Your task to perform on an android device: Open calendar and show me the fourth week of next month Image 0: 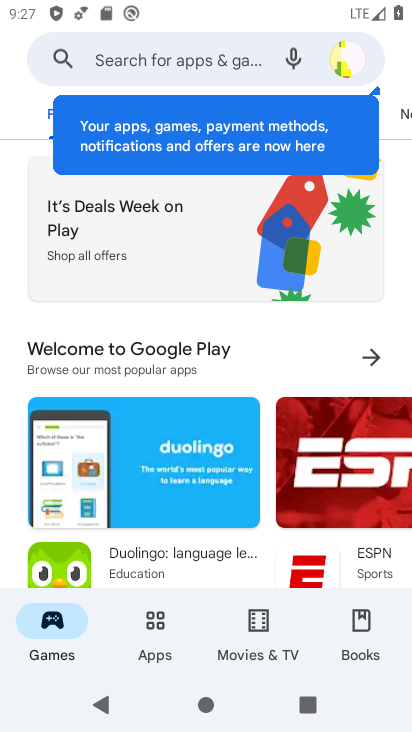
Step 0: press home button
Your task to perform on an android device: Open calendar and show me the fourth week of next month Image 1: 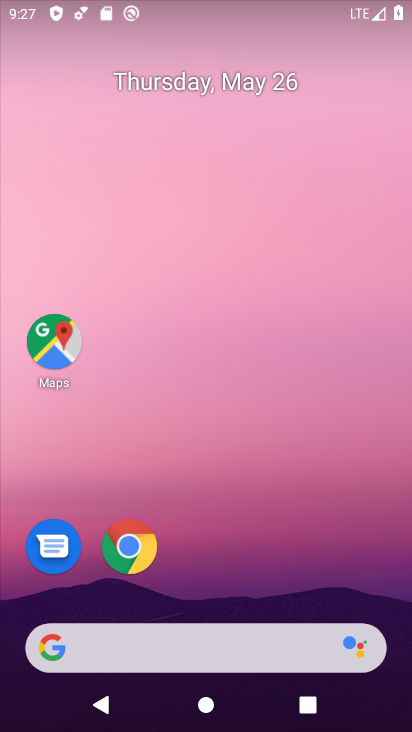
Step 1: drag from (333, 524) to (232, 139)
Your task to perform on an android device: Open calendar and show me the fourth week of next month Image 2: 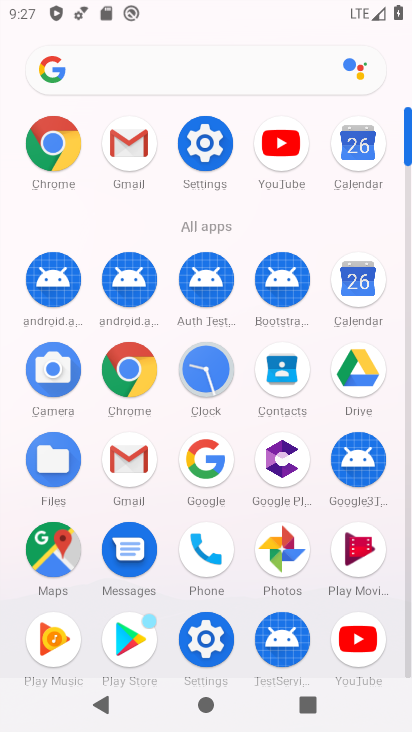
Step 2: click (368, 157)
Your task to perform on an android device: Open calendar and show me the fourth week of next month Image 3: 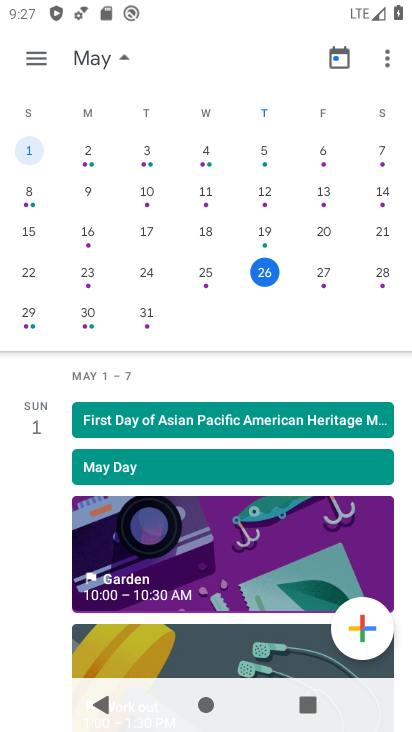
Step 3: drag from (301, 215) to (11, 215)
Your task to perform on an android device: Open calendar and show me the fourth week of next month Image 4: 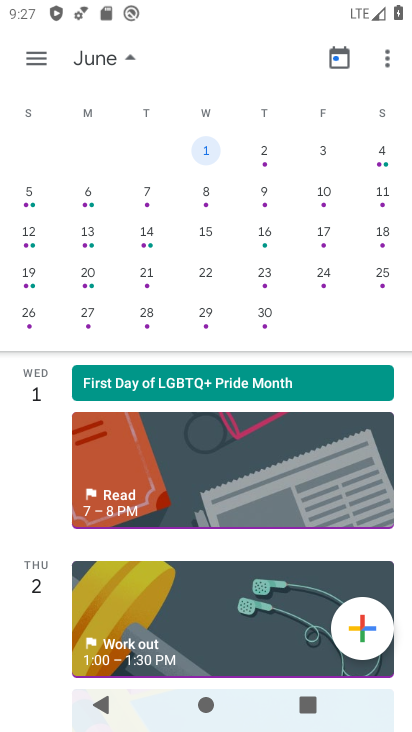
Step 4: click (37, 269)
Your task to perform on an android device: Open calendar and show me the fourth week of next month Image 5: 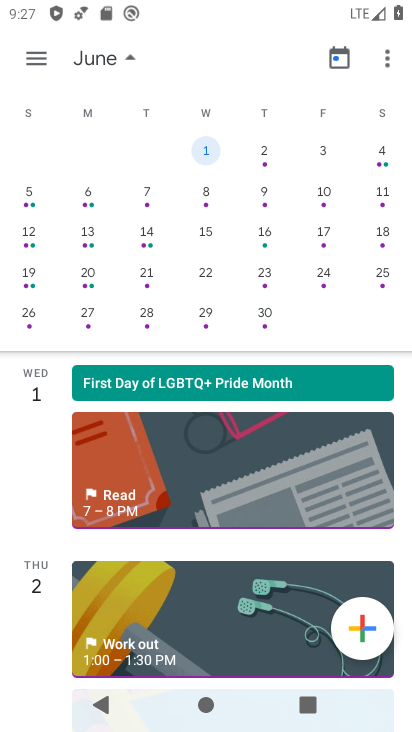
Step 5: click (34, 272)
Your task to perform on an android device: Open calendar and show me the fourth week of next month Image 6: 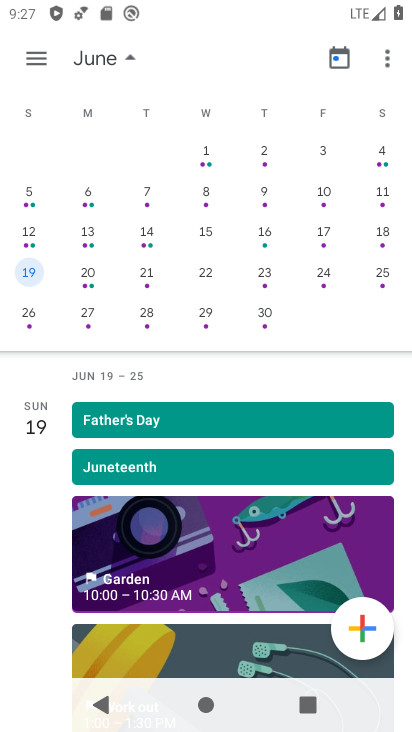
Step 6: task complete